Your task to perform on an android device: allow cookies in the chrome app Image 0: 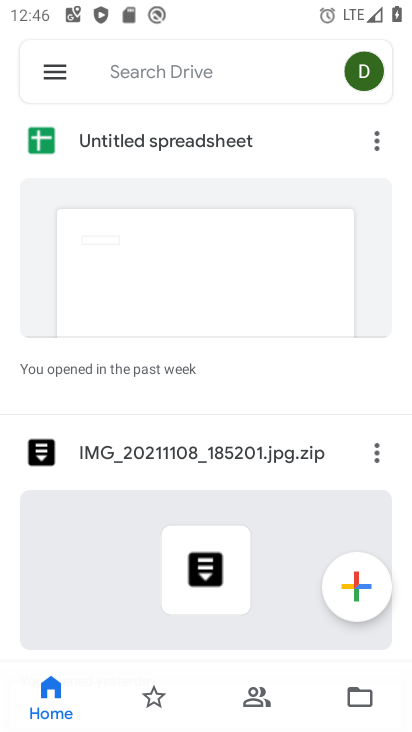
Step 0: press home button
Your task to perform on an android device: allow cookies in the chrome app Image 1: 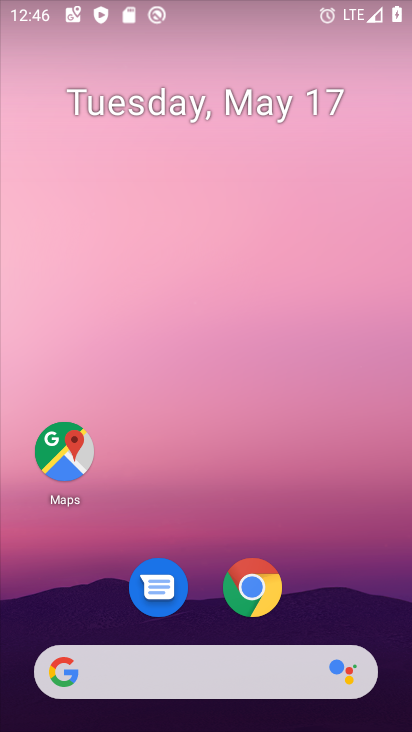
Step 1: drag from (401, 655) to (278, 65)
Your task to perform on an android device: allow cookies in the chrome app Image 2: 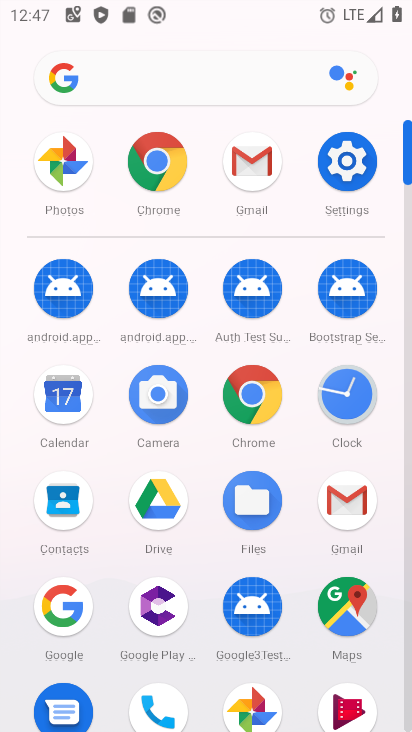
Step 2: click (250, 405)
Your task to perform on an android device: allow cookies in the chrome app Image 3: 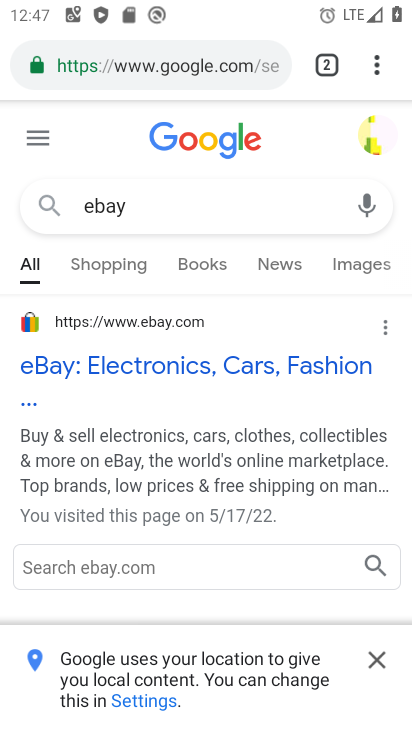
Step 3: press back button
Your task to perform on an android device: allow cookies in the chrome app Image 4: 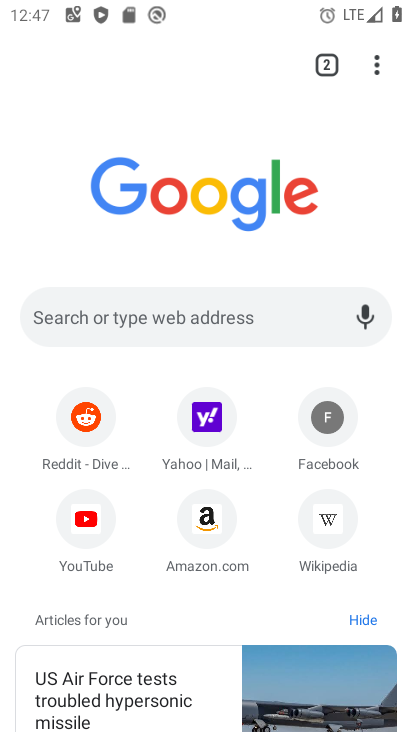
Step 4: click (377, 64)
Your task to perform on an android device: allow cookies in the chrome app Image 5: 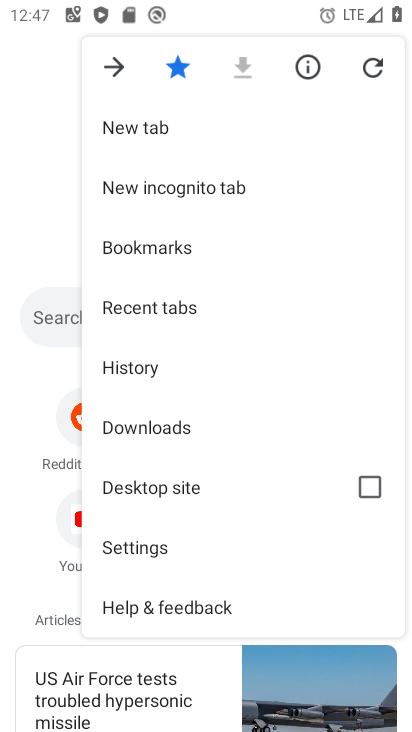
Step 5: click (183, 362)
Your task to perform on an android device: allow cookies in the chrome app Image 6: 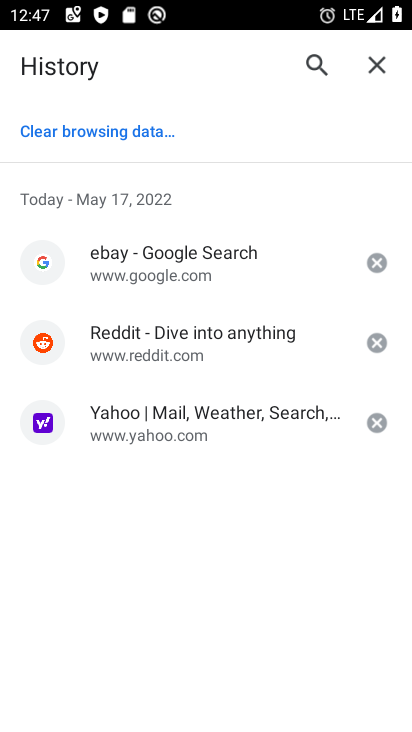
Step 6: click (148, 132)
Your task to perform on an android device: allow cookies in the chrome app Image 7: 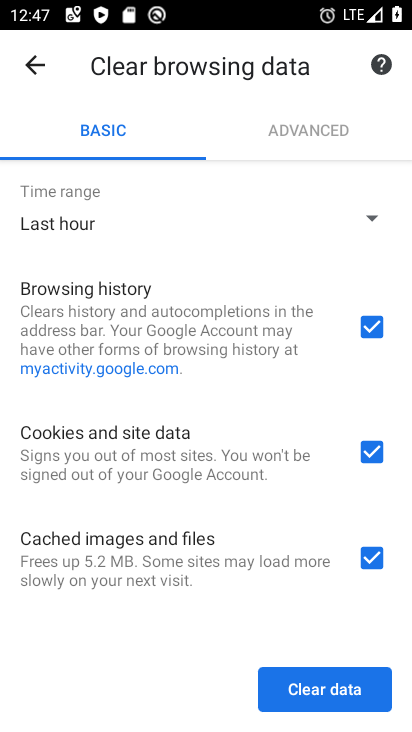
Step 7: task complete